Your task to perform on an android device: Is it going to rain today? Image 0: 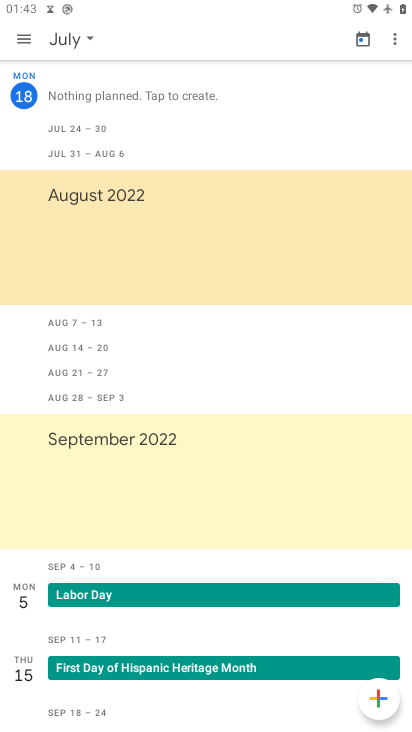
Step 0: press home button
Your task to perform on an android device: Is it going to rain today? Image 1: 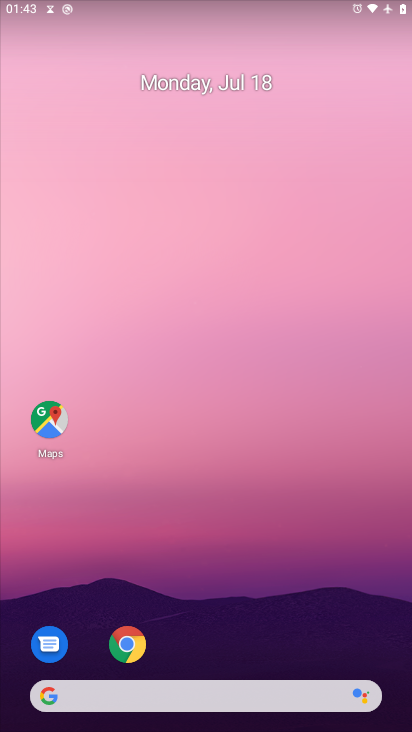
Step 1: click (45, 689)
Your task to perform on an android device: Is it going to rain today? Image 2: 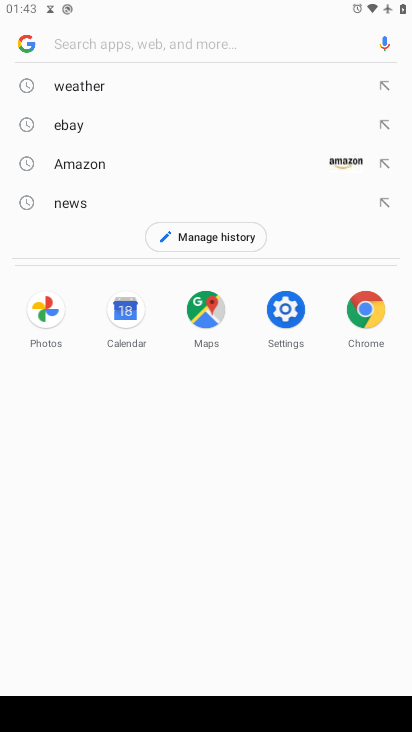
Step 2: type "rain today?"
Your task to perform on an android device: Is it going to rain today? Image 3: 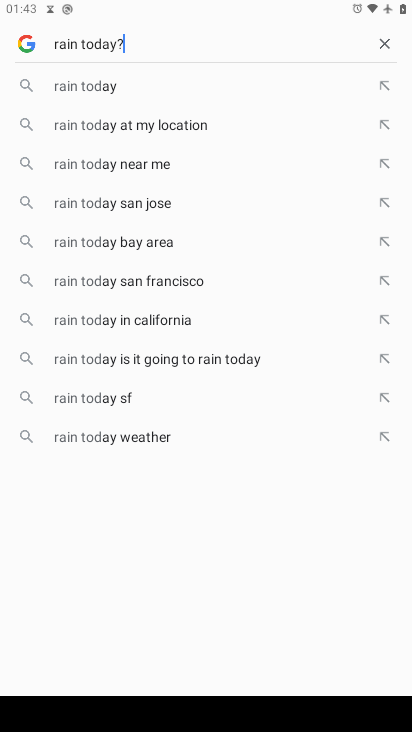
Step 3: press enter
Your task to perform on an android device: Is it going to rain today? Image 4: 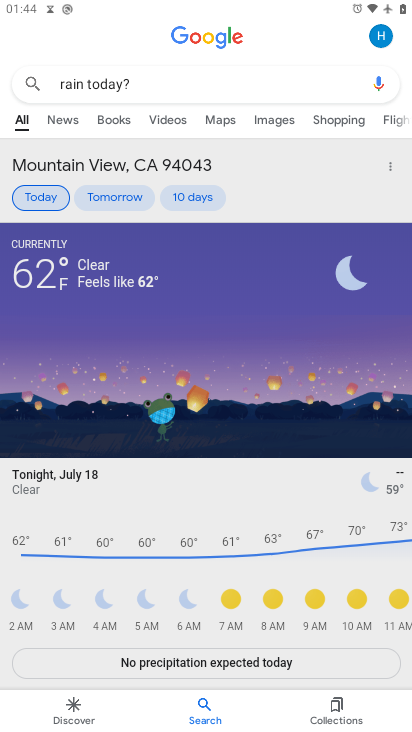
Step 4: task complete